Your task to perform on an android device: Open Google Maps and go to "Timeline" Image 0: 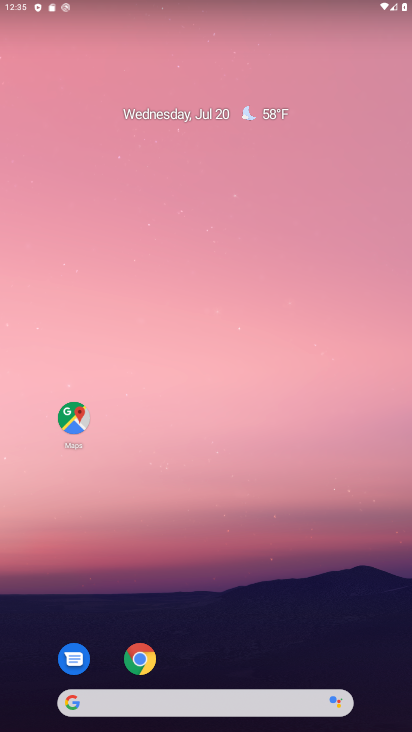
Step 0: drag from (254, 650) to (201, 39)
Your task to perform on an android device: Open Google Maps and go to "Timeline" Image 1: 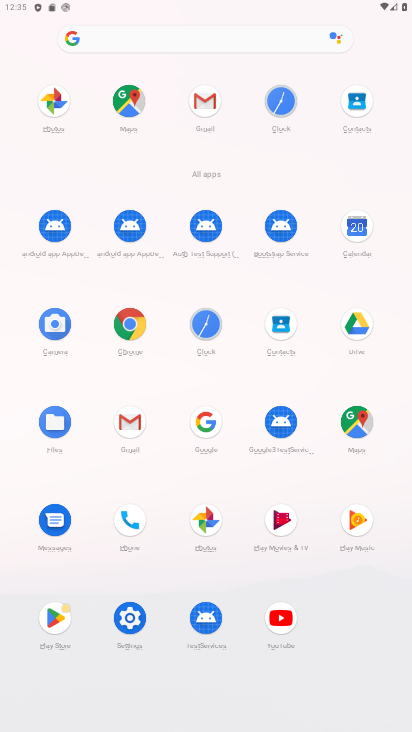
Step 1: click (346, 416)
Your task to perform on an android device: Open Google Maps and go to "Timeline" Image 2: 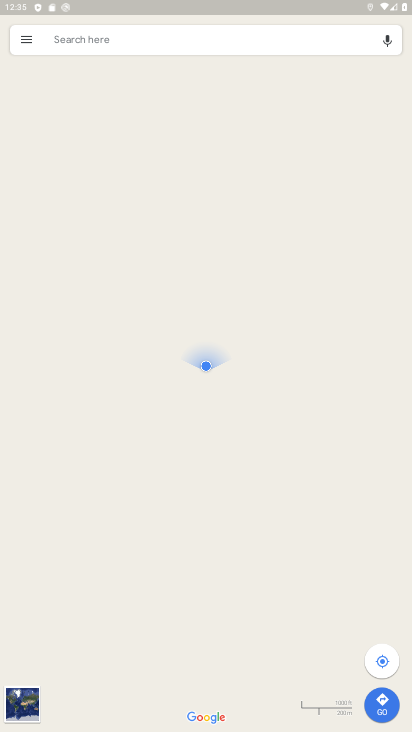
Step 2: click (22, 43)
Your task to perform on an android device: Open Google Maps and go to "Timeline" Image 3: 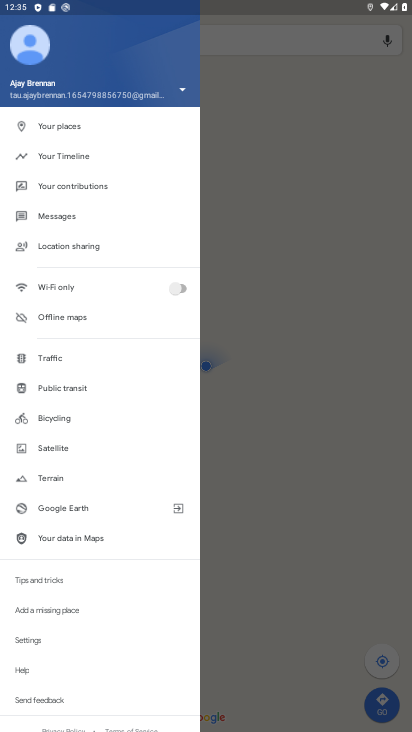
Step 3: click (77, 156)
Your task to perform on an android device: Open Google Maps and go to "Timeline" Image 4: 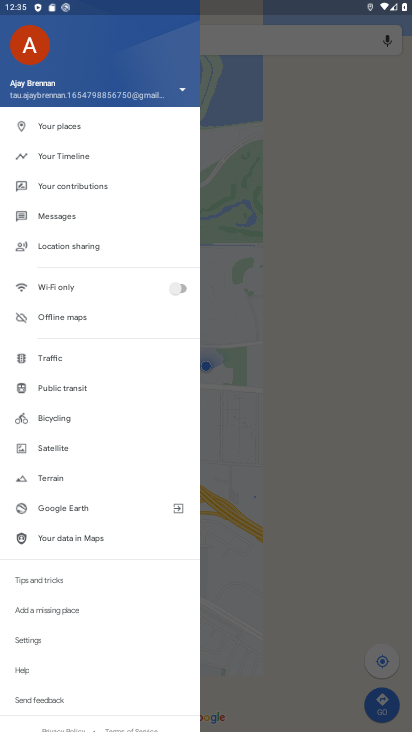
Step 4: click (78, 156)
Your task to perform on an android device: Open Google Maps and go to "Timeline" Image 5: 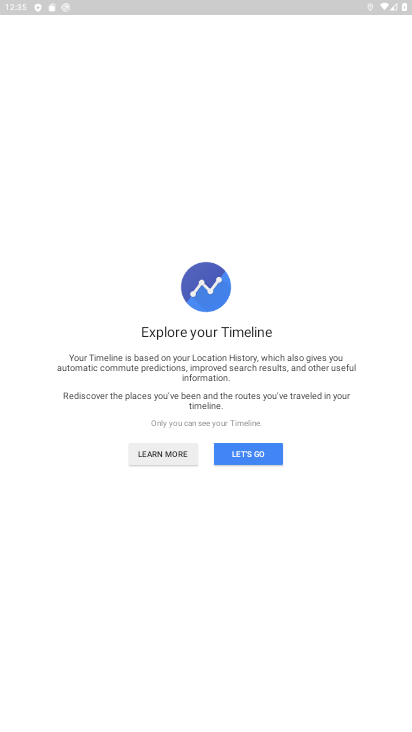
Step 5: task complete